Your task to perform on an android device: What's the latest video from GameSpot Trailers? Image 0: 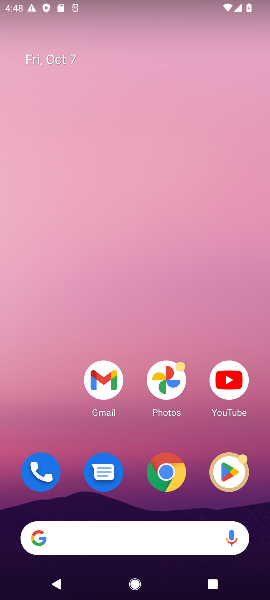
Step 0: click (159, 473)
Your task to perform on an android device: What's the latest video from GameSpot Trailers? Image 1: 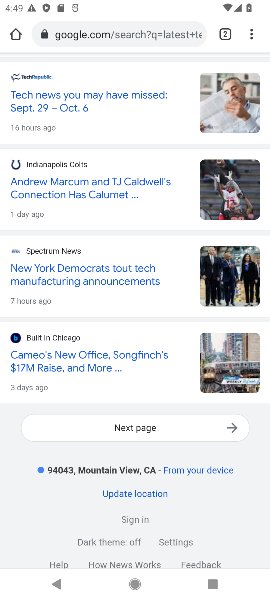
Step 1: click (131, 32)
Your task to perform on an android device: What's the latest video from GameSpot Trailers? Image 2: 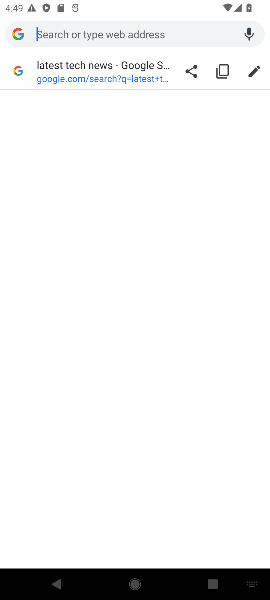
Step 2: type "latest video from GameSpot Trailers"
Your task to perform on an android device: What's the latest video from GameSpot Trailers? Image 3: 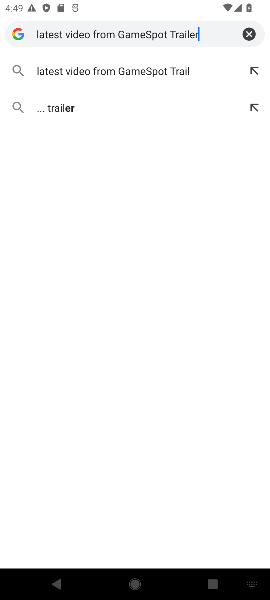
Step 3: press enter
Your task to perform on an android device: What's the latest video from GameSpot Trailers? Image 4: 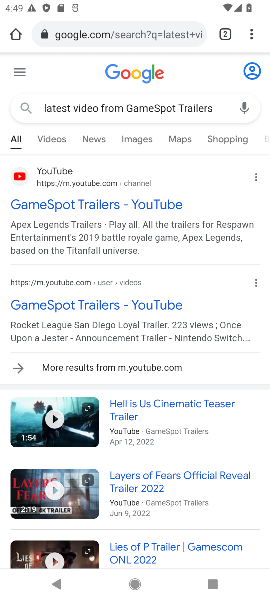
Step 4: click (65, 203)
Your task to perform on an android device: What's the latest video from GameSpot Trailers? Image 5: 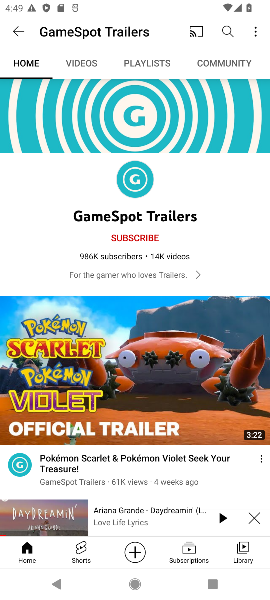
Step 5: click (86, 64)
Your task to perform on an android device: What's the latest video from GameSpot Trailers? Image 6: 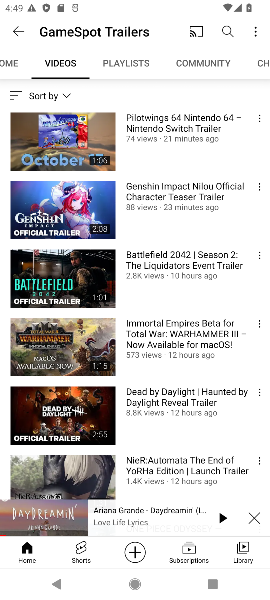
Step 6: click (97, 139)
Your task to perform on an android device: What's the latest video from GameSpot Trailers? Image 7: 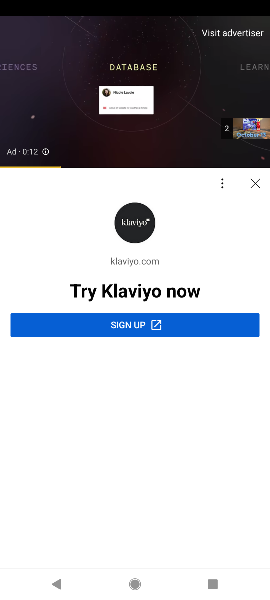
Step 7: click (254, 183)
Your task to perform on an android device: What's the latest video from GameSpot Trailers? Image 8: 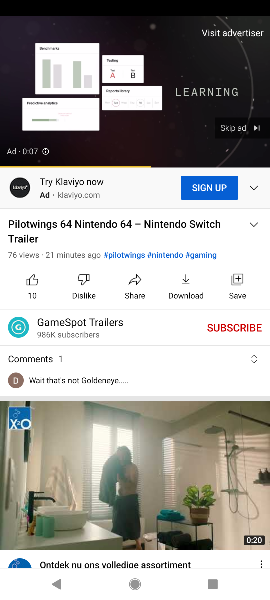
Step 8: click (244, 128)
Your task to perform on an android device: What's the latest video from GameSpot Trailers? Image 9: 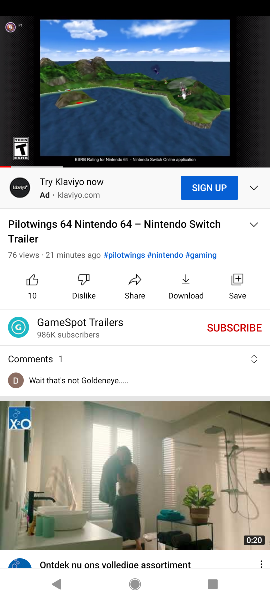
Step 9: click (29, 167)
Your task to perform on an android device: What's the latest video from GameSpot Trailers? Image 10: 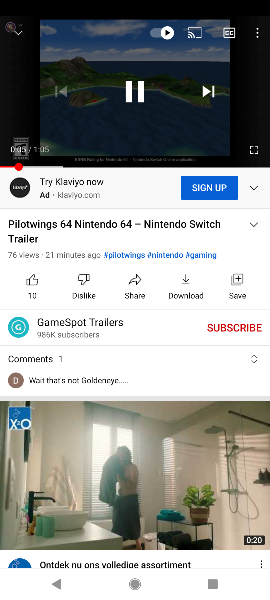
Step 10: click (50, 167)
Your task to perform on an android device: What's the latest video from GameSpot Trailers? Image 11: 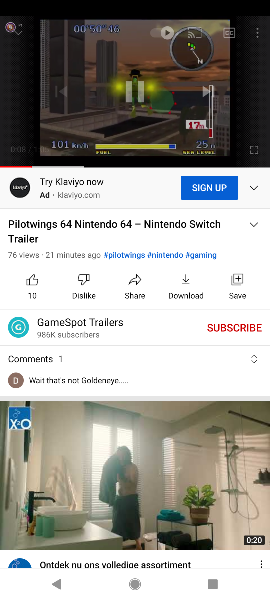
Step 11: task complete